Your task to perform on an android device: Go to Amazon Image 0: 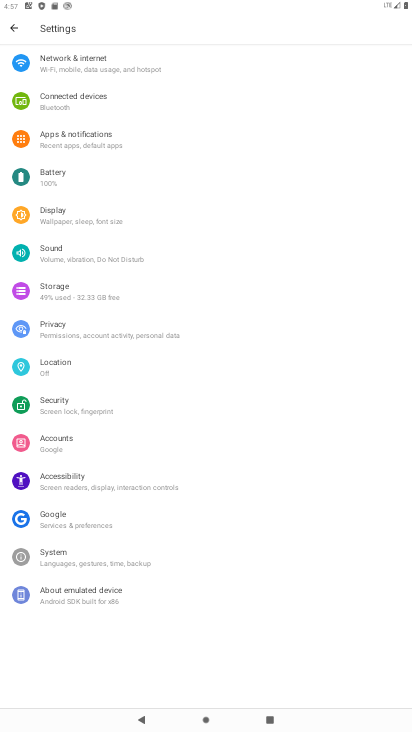
Step 0: press home button
Your task to perform on an android device: Go to Amazon Image 1: 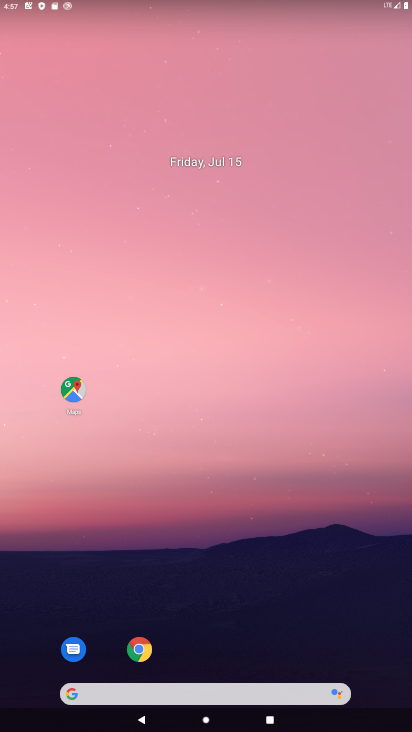
Step 1: drag from (311, 620) to (124, 9)
Your task to perform on an android device: Go to Amazon Image 2: 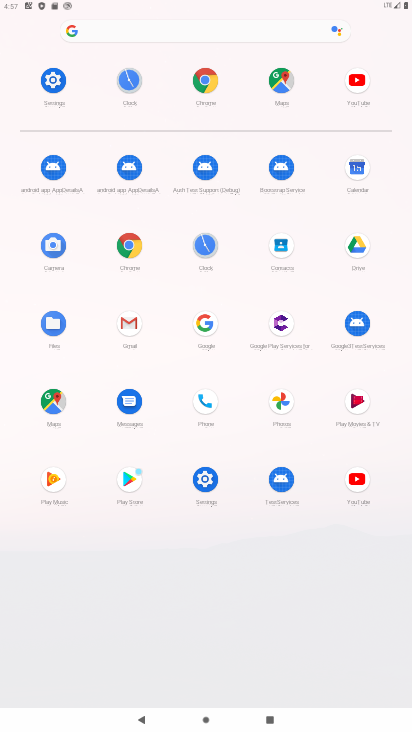
Step 2: click (123, 240)
Your task to perform on an android device: Go to Amazon Image 3: 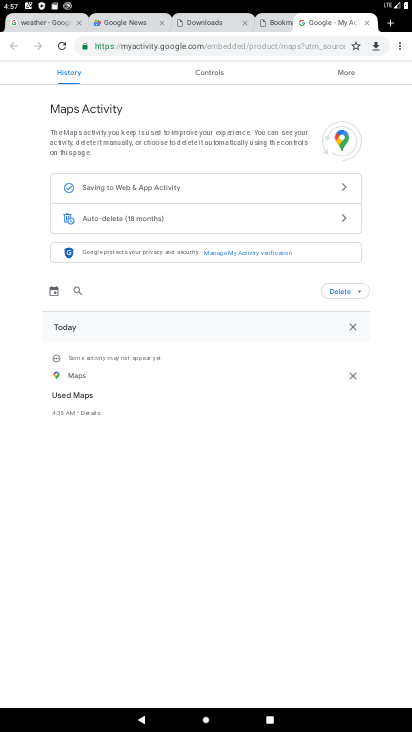
Step 3: click (221, 51)
Your task to perform on an android device: Go to Amazon Image 4: 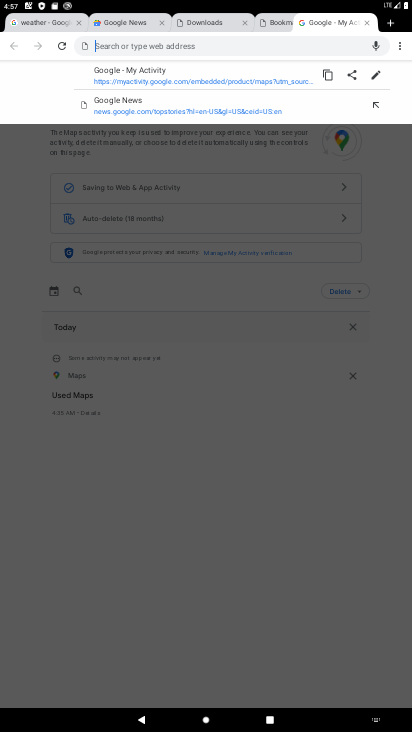
Step 4: type "amazon"
Your task to perform on an android device: Go to Amazon Image 5: 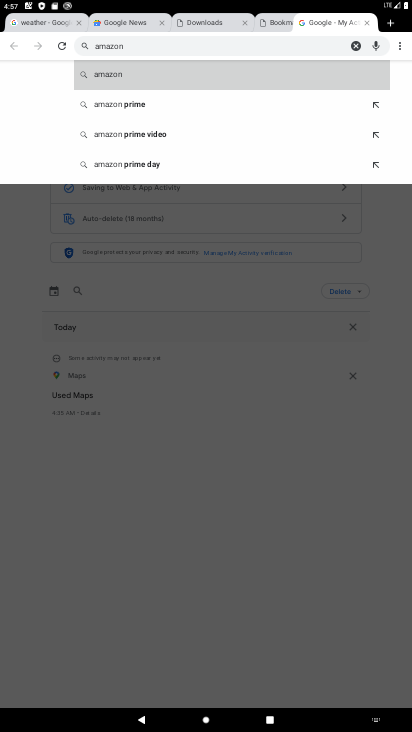
Step 5: click (116, 74)
Your task to perform on an android device: Go to Amazon Image 6: 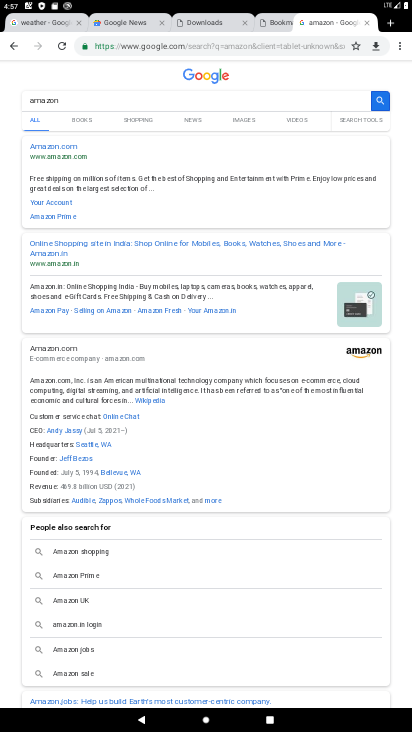
Step 6: click (52, 149)
Your task to perform on an android device: Go to Amazon Image 7: 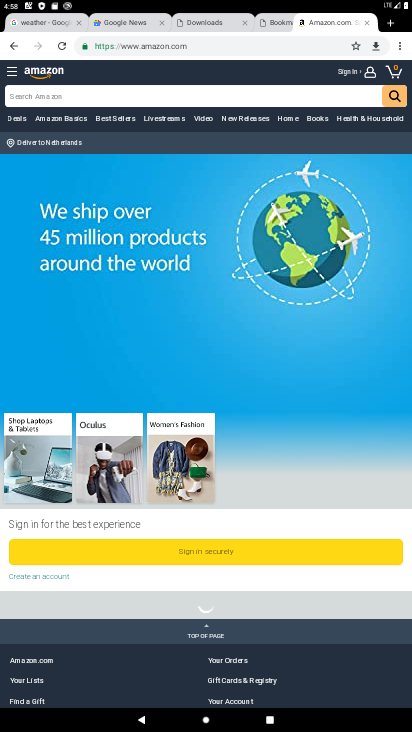
Step 7: task complete